Your task to perform on an android device: Open notification settings Image 0: 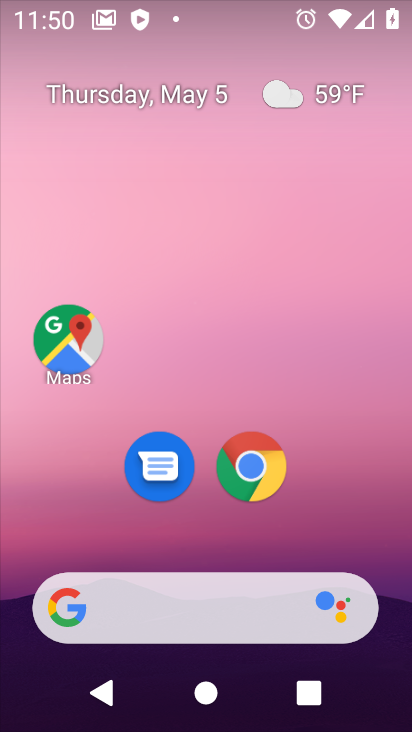
Step 0: drag from (188, 556) to (211, 166)
Your task to perform on an android device: Open notification settings Image 1: 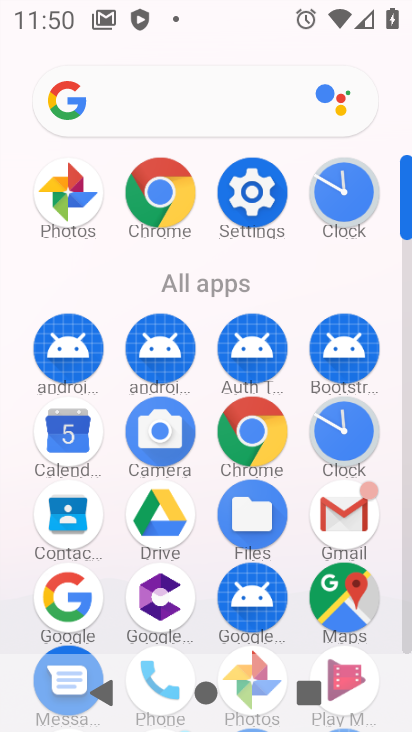
Step 1: click (252, 197)
Your task to perform on an android device: Open notification settings Image 2: 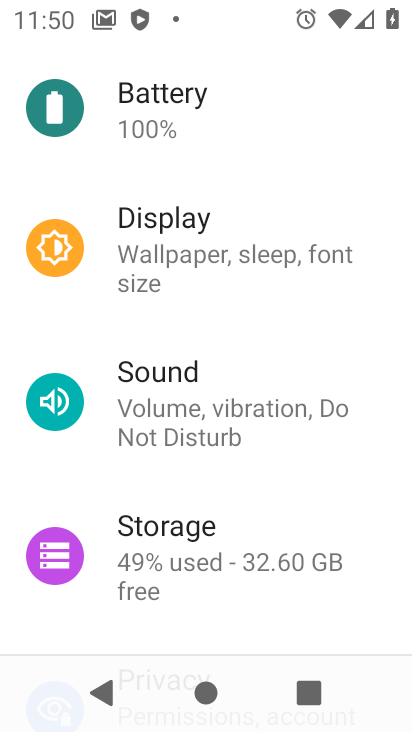
Step 2: drag from (232, 191) to (246, 546)
Your task to perform on an android device: Open notification settings Image 3: 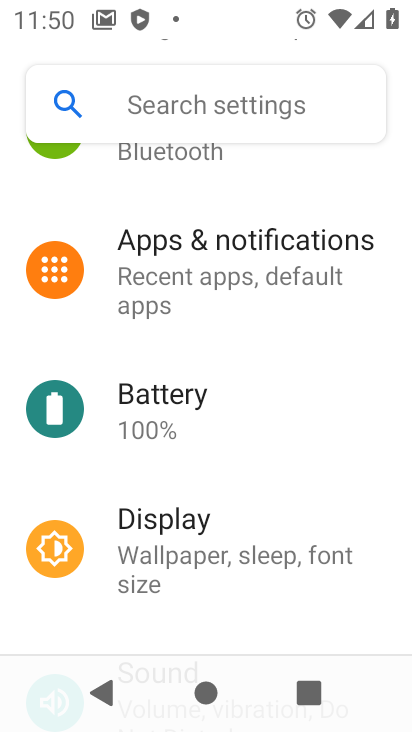
Step 3: click (226, 271)
Your task to perform on an android device: Open notification settings Image 4: 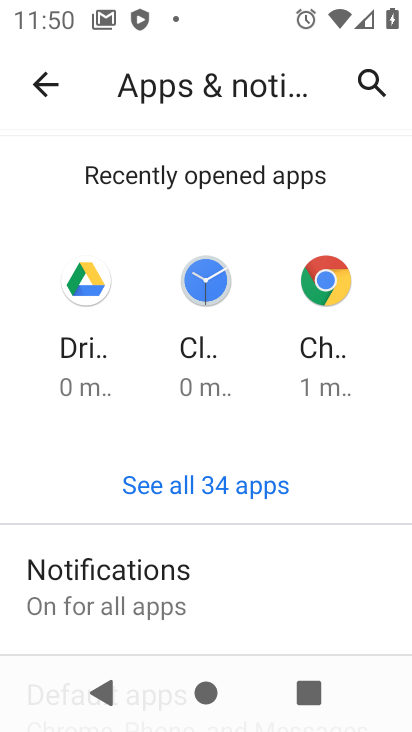
Step 4: click (136, 589)
Your task to perform on an android device: Open notification settings Image 5: 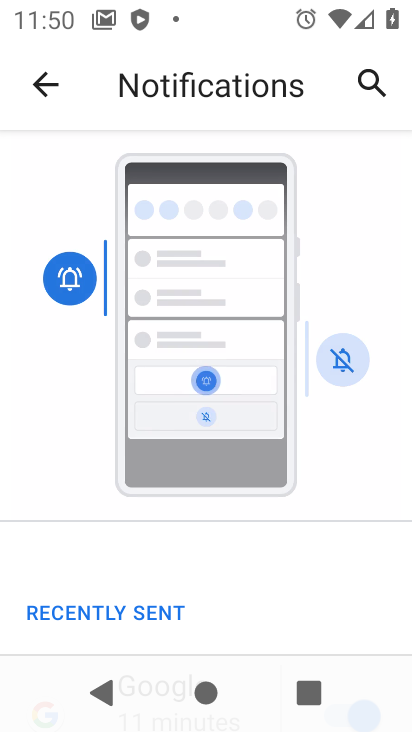
Step 5: task complete